Your task to perform on an android device: toggle data saver in the chrome app Image 0: 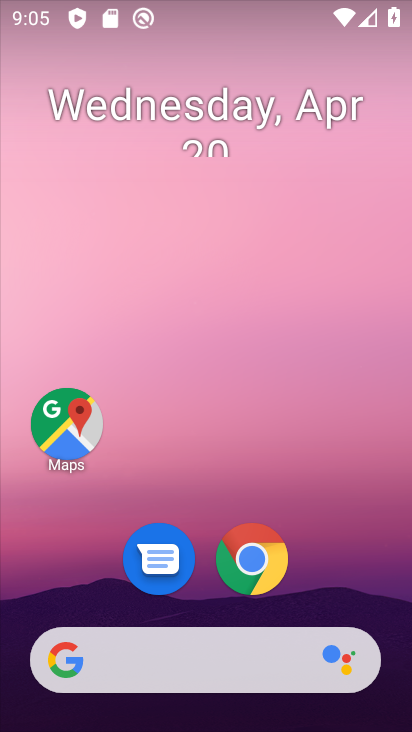
Step 0: click (246, 577)
Your task to perform on an android device: toggle data saver in the chrome app Image 1: 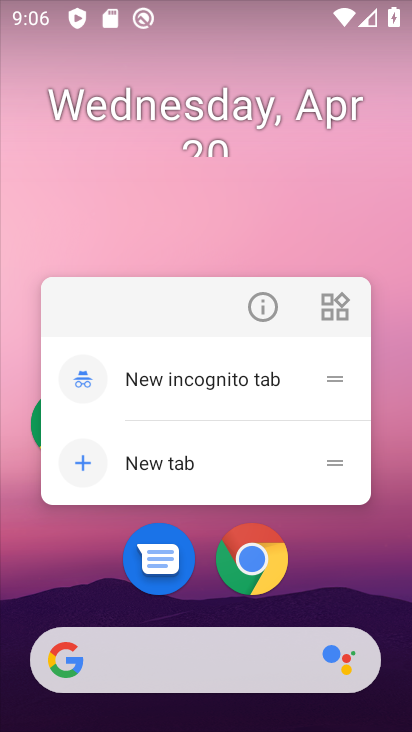
Step 1: click (241, 556)
Your task to perform on an android device: toggle data saver in the chrome app Image 2: 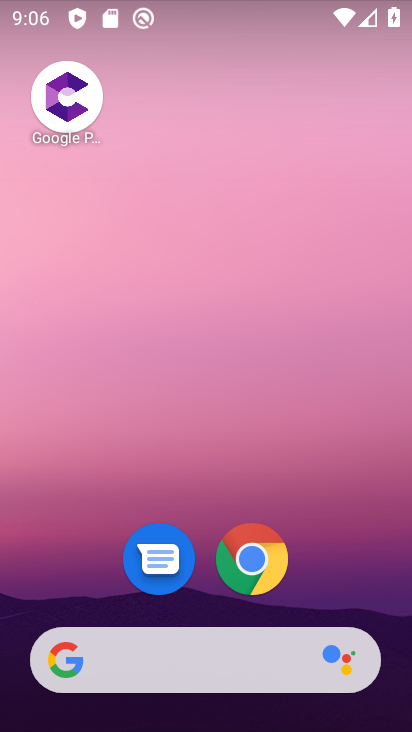
Step 2: click (241, 556)
Your task to perform on an android device: toggle data saver in the chrome app Image 3: 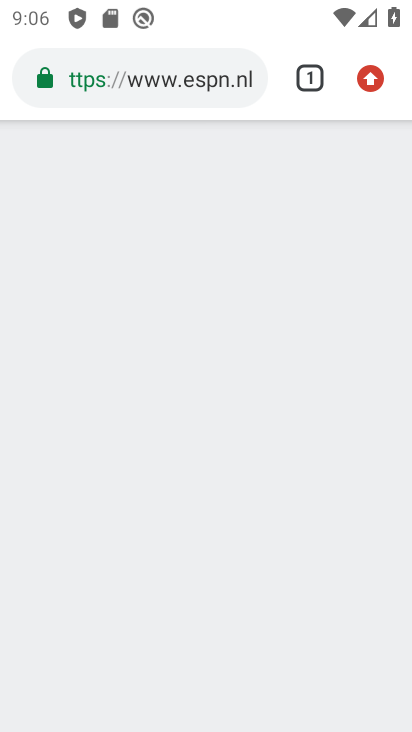
Step 3: drag from (365, 82) to (108, 629)
Your task to perform on an android device: toggle data saver in the chrome app Image 4: 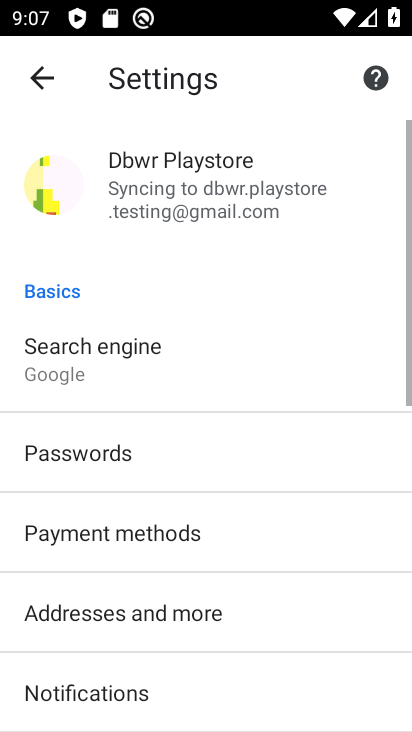
Step 4: drag from (153, 527) to (170, 213)
Your task to perform on an android device: toggle data saver in the chrome app Image 5: 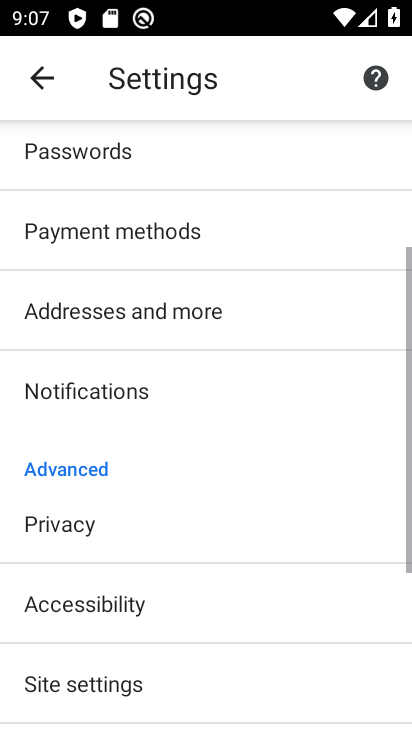
Step 5: drag from (175, 653) to (192, 360)
Your task to perform on an android device: toggle data saver in the chrome app Image 6: 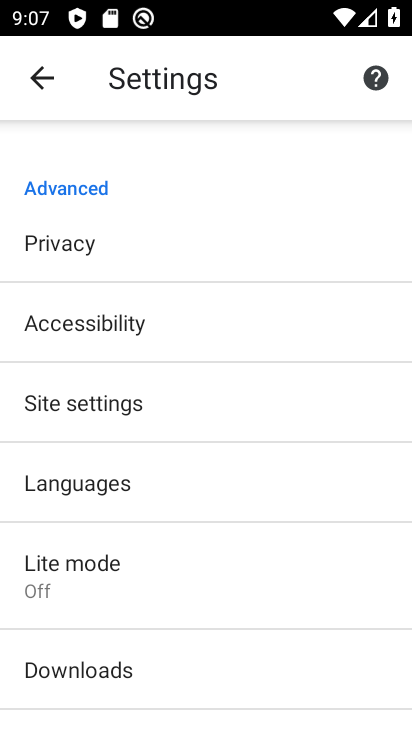
Step 6: drag from (158, 583) to (160, 420)
Your task to perform on an android device: toggle data saver in the chrome app Image 7: 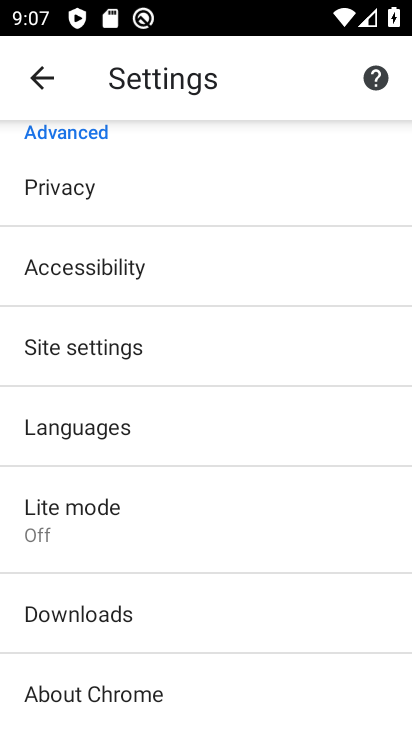
Step 7: click (92, 513)
Your task to perform on an android device: toggle data saver in the chrome app Image 8: 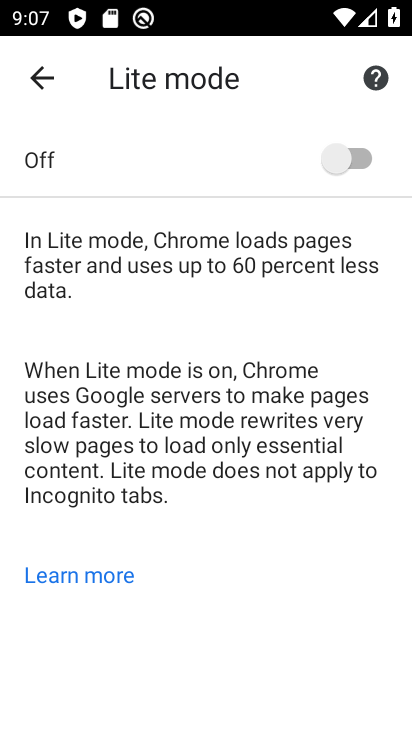
Step 8: click (352, 148)
Your task to perform on an android device: toggle data saver in the chrome app Image 9: 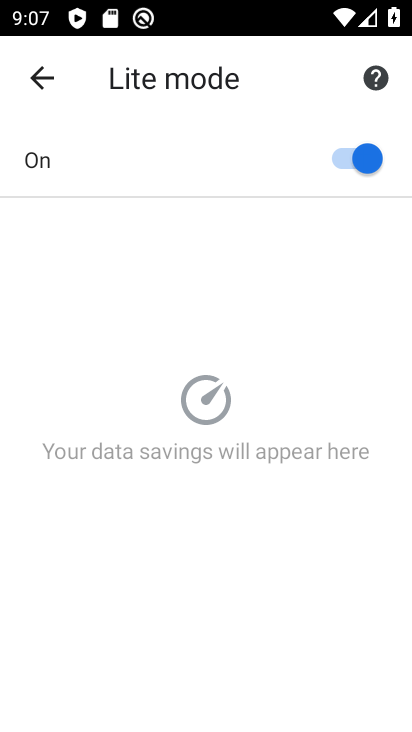
Step 9: task complete